Your task to perform on an android device: open device folders in google photos Image 0: 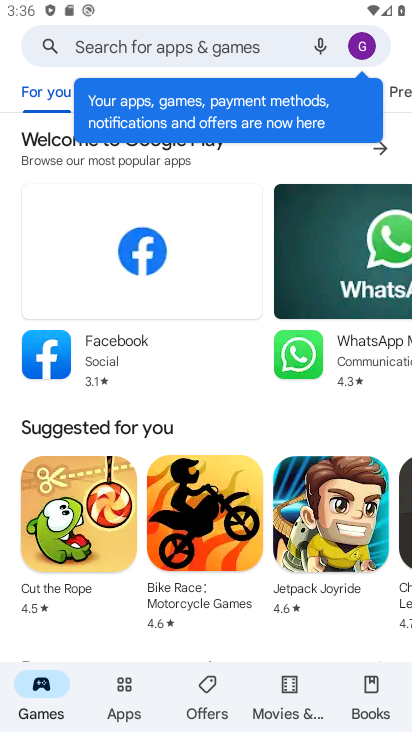
Step 0: press home button
Your task to perform on an android device: open device folders in google photos Image 1: 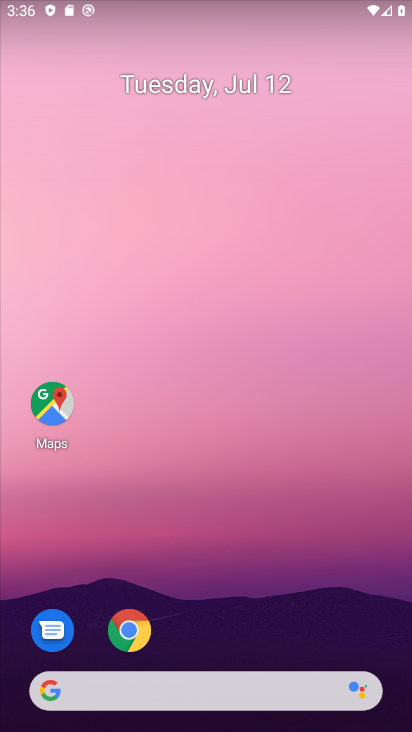
Step 1: drag from (207, 559) to (222, 58)
Your task to perform on an android device: open device folders in google photos Image 2: 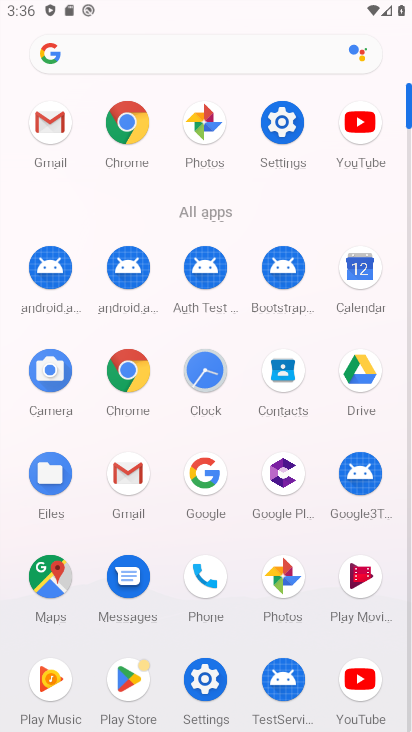
Step 2: click (285, 578)
Your task to perform on an android device: open device folders in google photos Image 3: 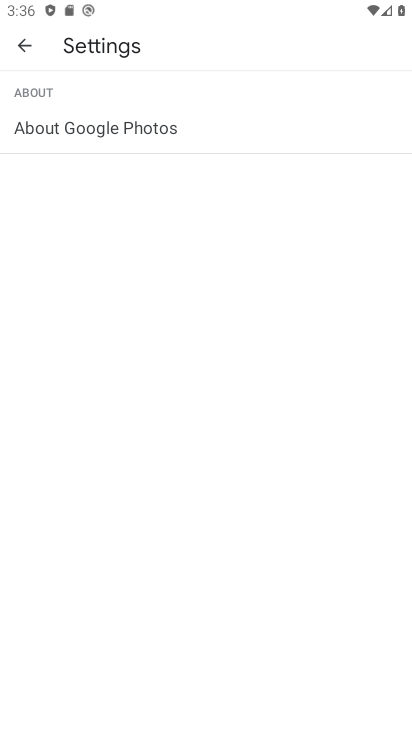
Step 3: click (23, 48)
Your task to perform on an android device: open device folders in google photos Image 4: 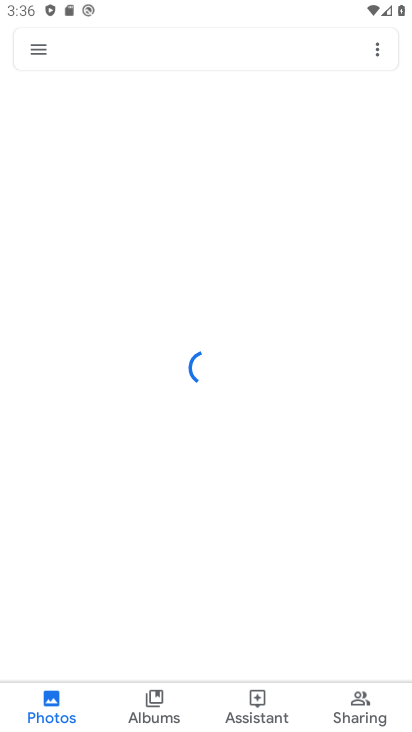
Step 4: click (35, 53)
Your task to perform on an android device: open device folders in google photos Image 5: 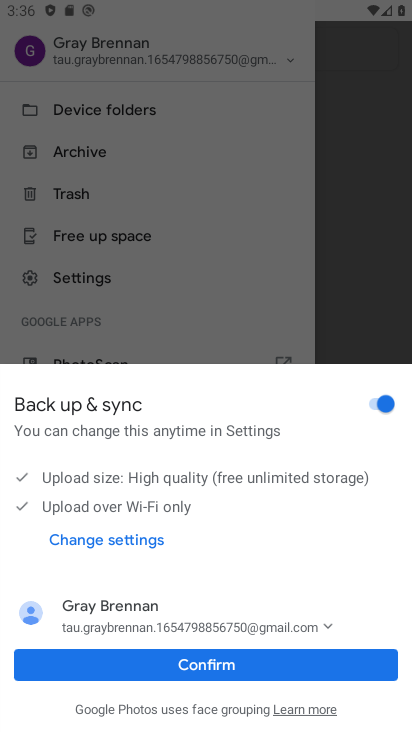
Step 5: click (177, 665)
Your task to perform on an android device: open device folders in google photos Image 6: 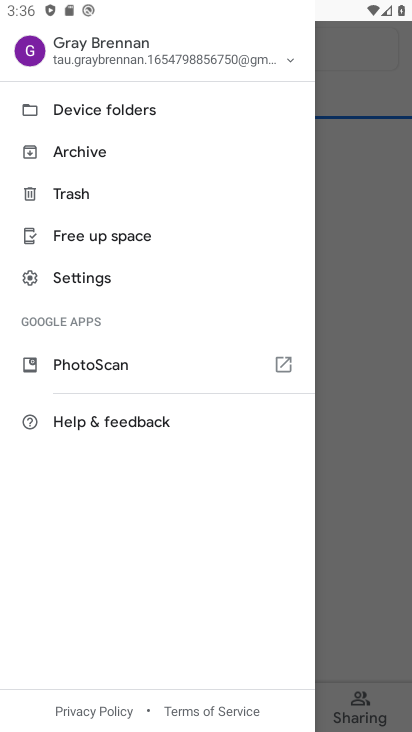
Step 6: click (118, 113)
Your task to perform on an android device: open device folders in google photos Image 7: 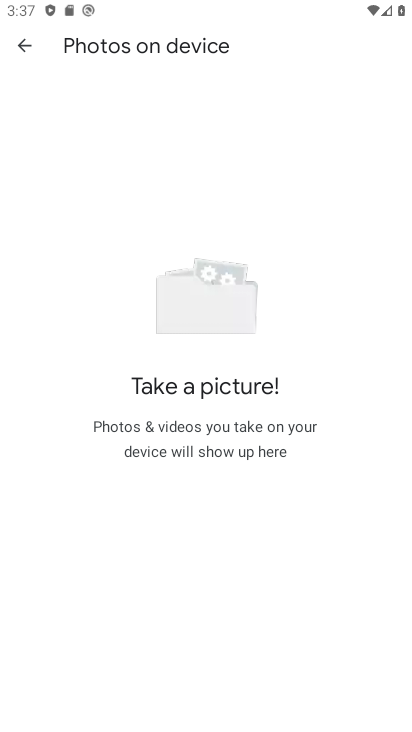
Step 7: task complete